Your task to perform on an android device: Go to Google Image 0: 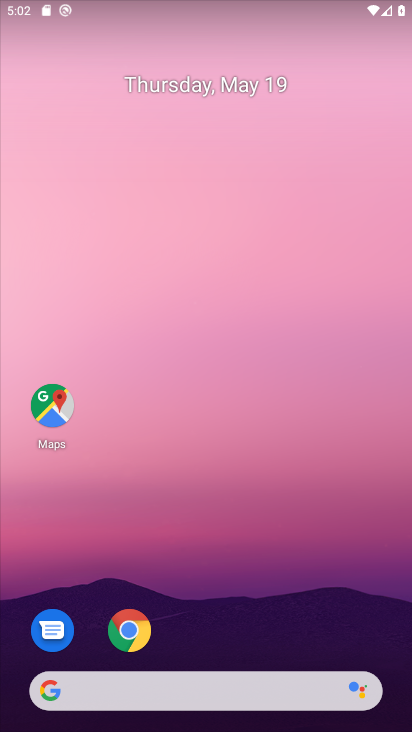
Step 0: drag from (274, 568) to (253, 55)
Your task to perform on an android device: Go to Google Image 1: 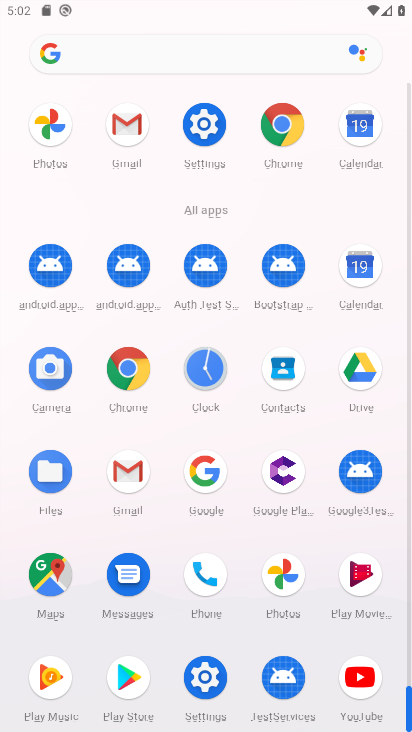
Step 1: click (284, 116)
Your task to perform on an android device: Go to Google Image 2: 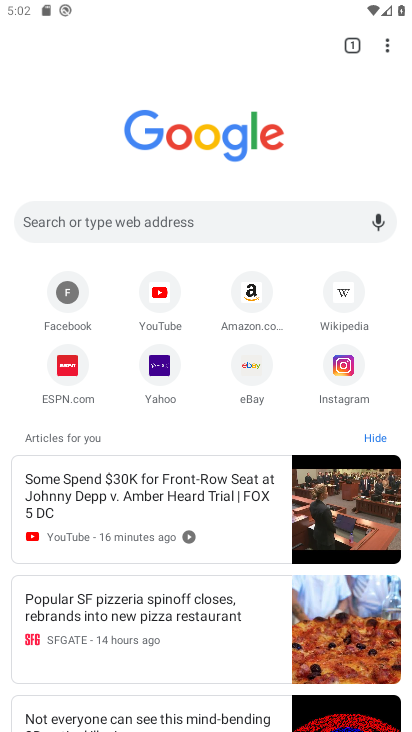
Step 2: click (168, 210)
Your task to perform on an android device: Go to Google Image 3: 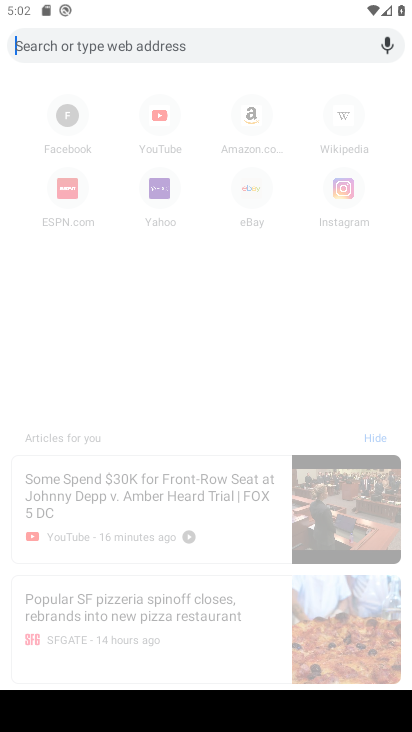
Step 3: type "Google"
Your task to perform on an android device: Go to Google Image 4: 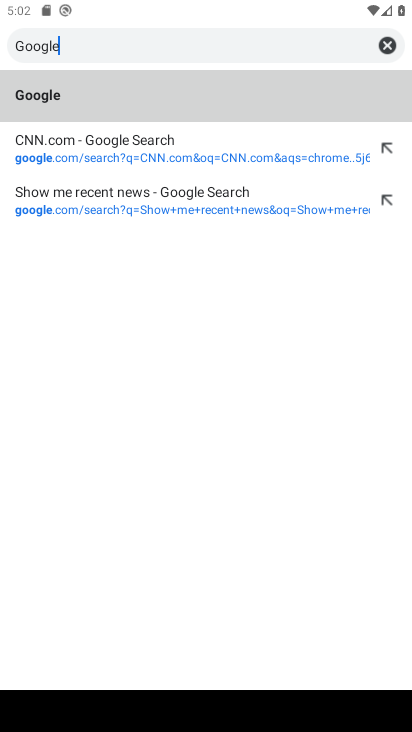
Step 4: type ""
Your task to perform on an android device: Go to Google Image 5: 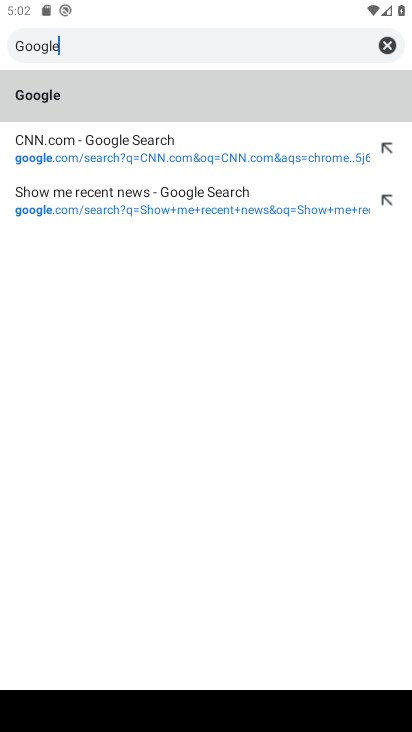
Step 5: click (112, 107)
Your task to perform on an android device: Go to Google Image 6: 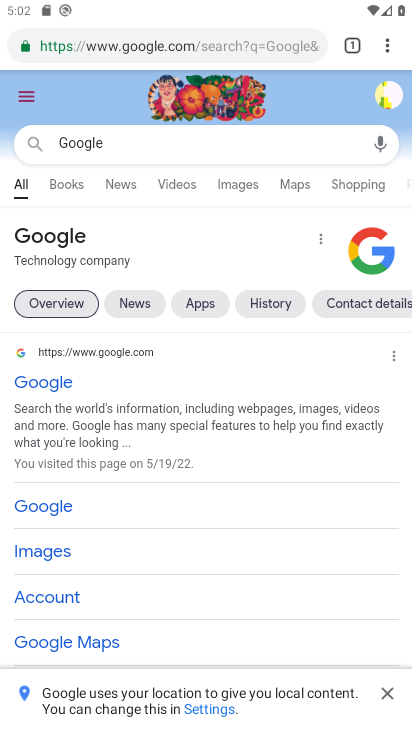
Step 6: click (40, 383)
Your task to perform on an android device: Go to Google Image 7: 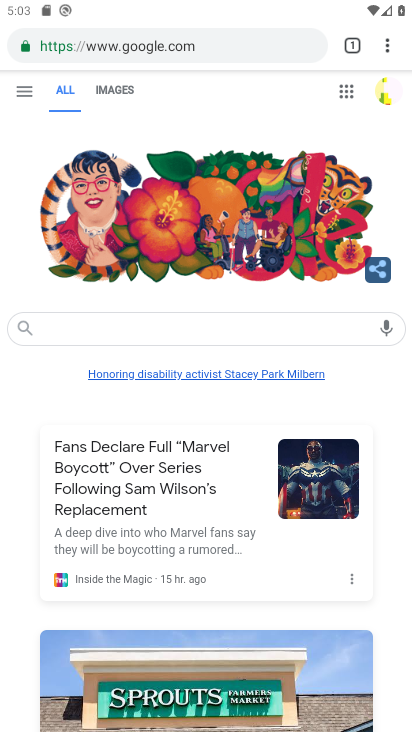
Step 7: task complete